Your task to perform on an android device: toggle notification dots Image 0: 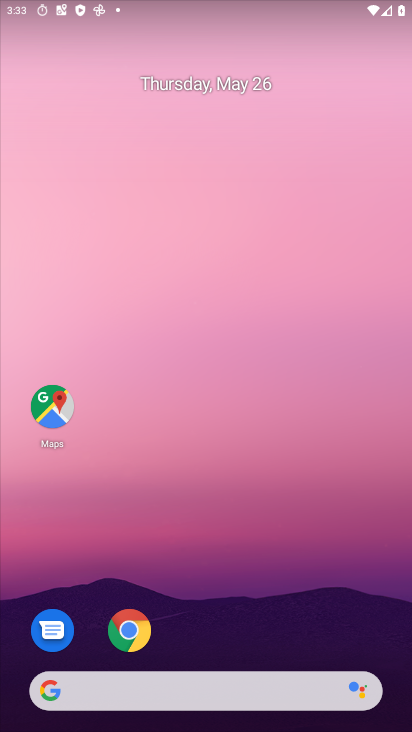
Step 0: drag from (316, 641) to (209, 43)
Your task to perform on an android device: toggle notification dots Image 1: 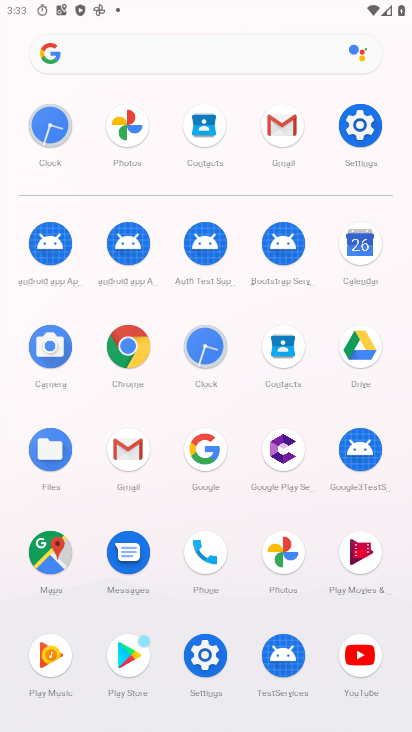
Step 1: click (355, 115)
Your task to perform on an android device: toggle notification dots Image 2: 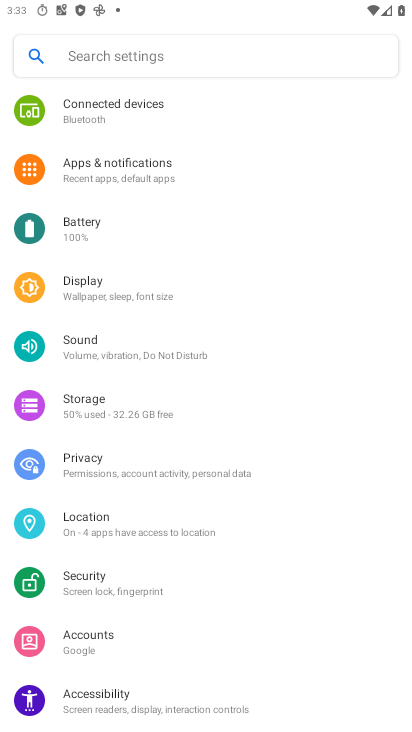
Step 2: click (125, 182)
Your task to perform on an android device: toggle notification dots Image 3: 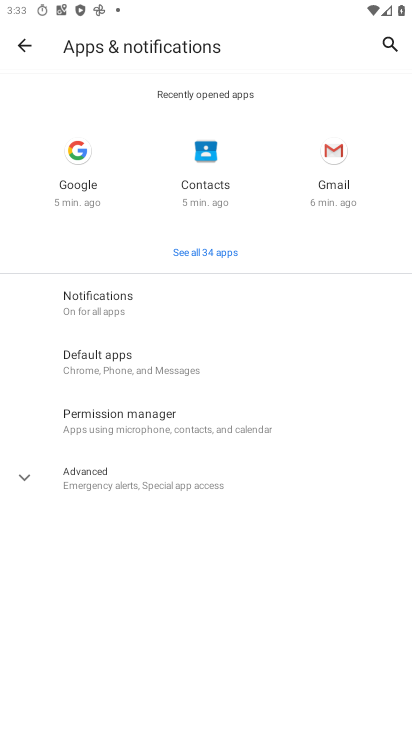
Step 3: click (96, 306)
Your task to perform on an android device: toggle notification dots Image 4: 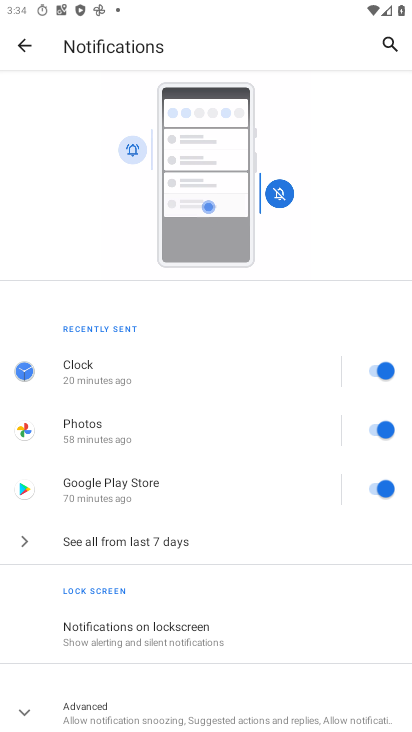
Step 4: drag from (191, 572) to (32, 46)
Your task to perform on an android device: toggle notification dots Image 5: 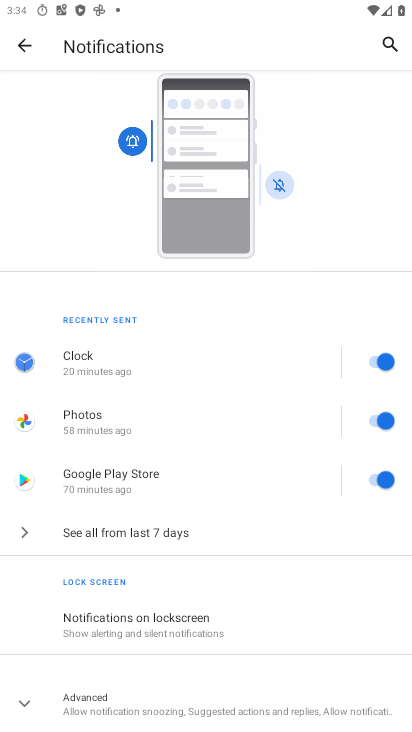
Step 5: drag from (210, 693) to (135, 210)
Your task to perform on an android device: toggle notification dots Image 6: 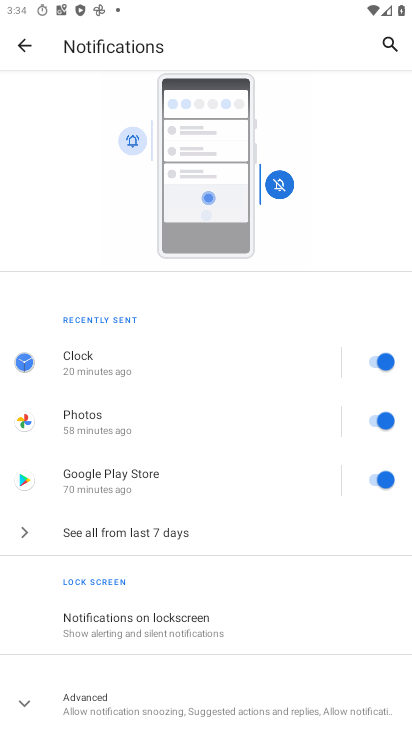
Step 6: click (212, 708)
Your task to perform on an android device: toggle notification dots Image 7: 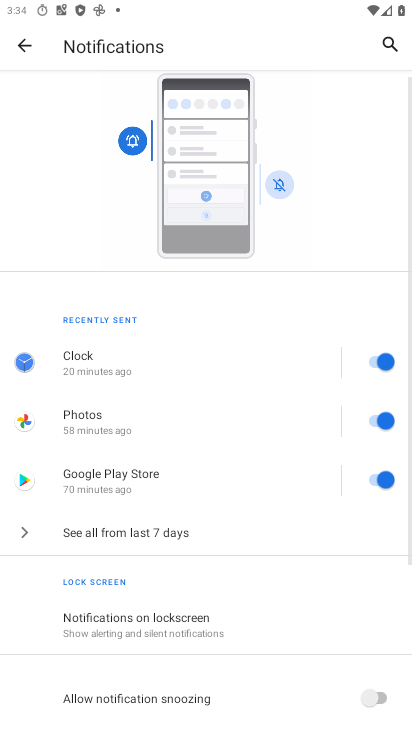
Step 7: drag from (211, 707) to (130, 41)
Your task to perform on an android device: toggle notification dots Image 8: 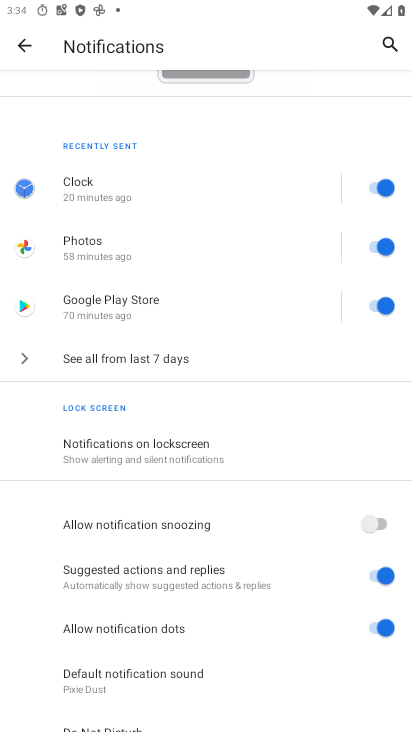
Step 8: drag from (149, 720) to (69, 4)
Your task to perform on an android device: toggle notification dots Image 9: 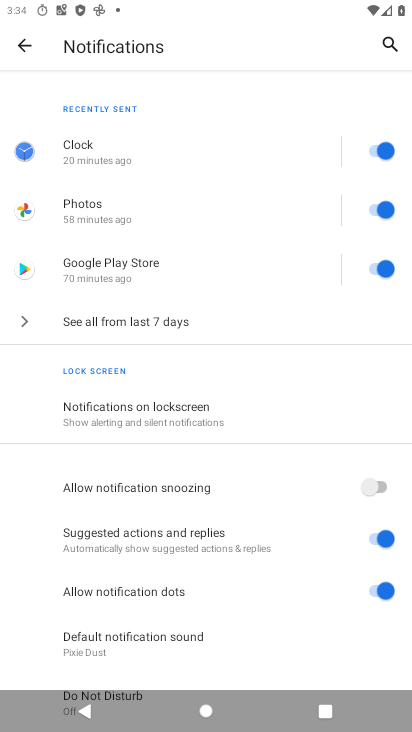
Step 9: drag from (121, 663) to (102, 281)
Your task to perform on an android device: toggle notification dots Image 10: 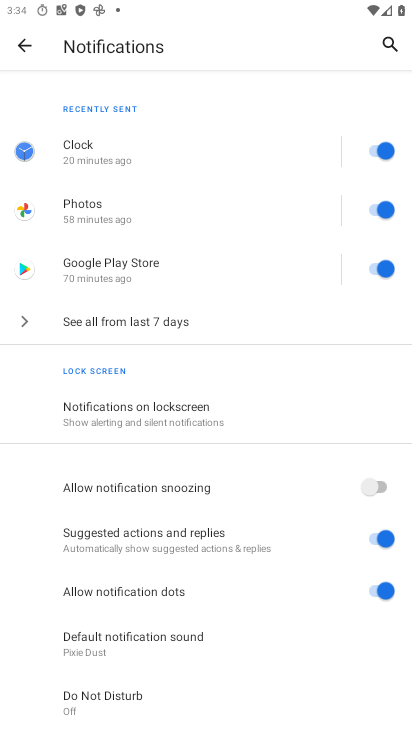
Step 10: click (376, 583)
Your task to perform on an android device: toggle notification dots Image 11: 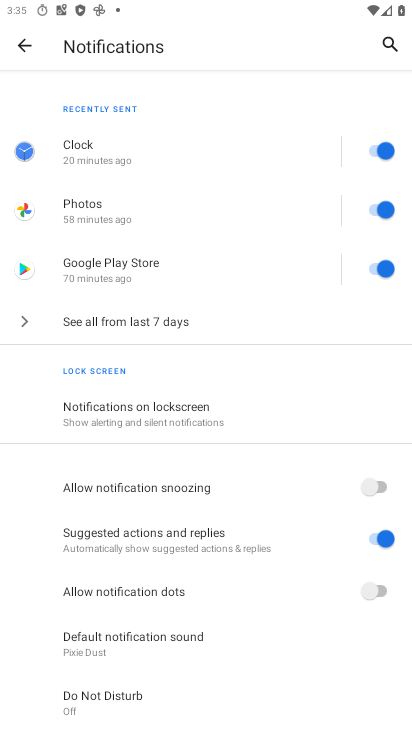
Step 11: task complete